Your task to perform on an android device: toggle sleep mode Image 0: 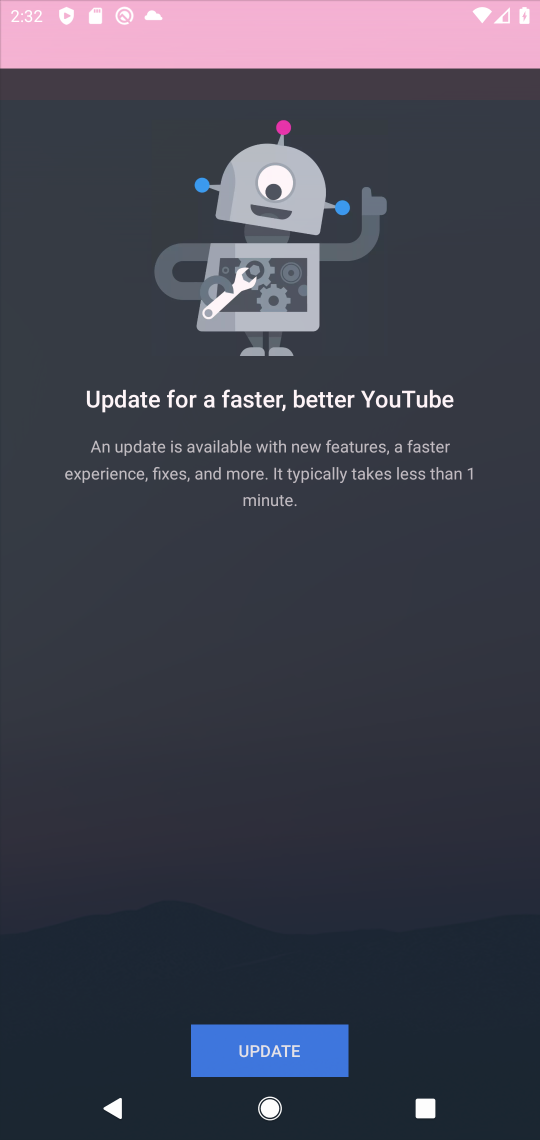
Step 0: press home button
Your task to perform on an android device: toggle sleep mode Image 1: 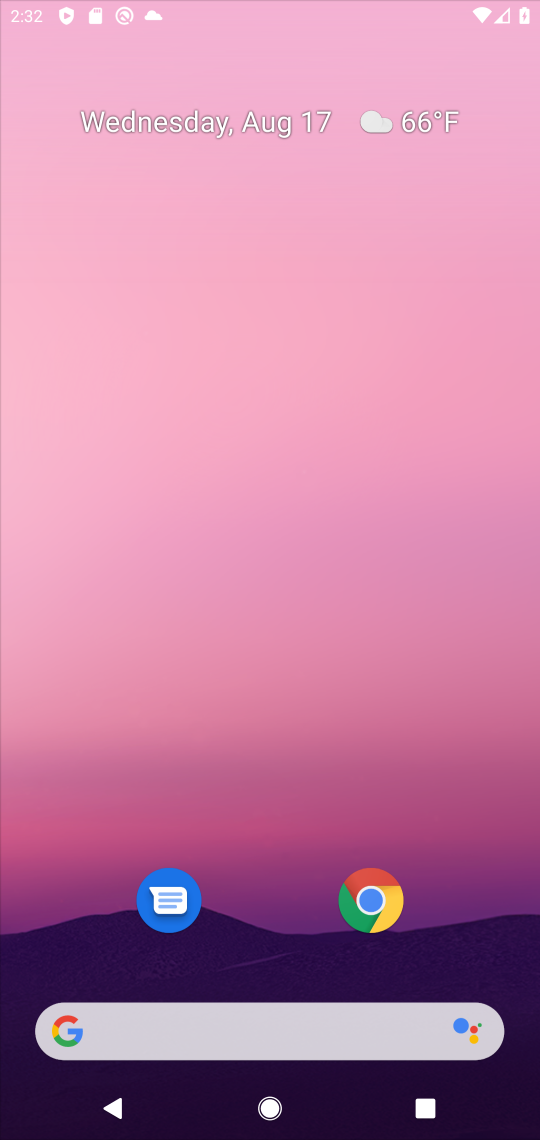
Step 1: press home button
Your task to perform on an android device: toggle sleep mode Image 2: 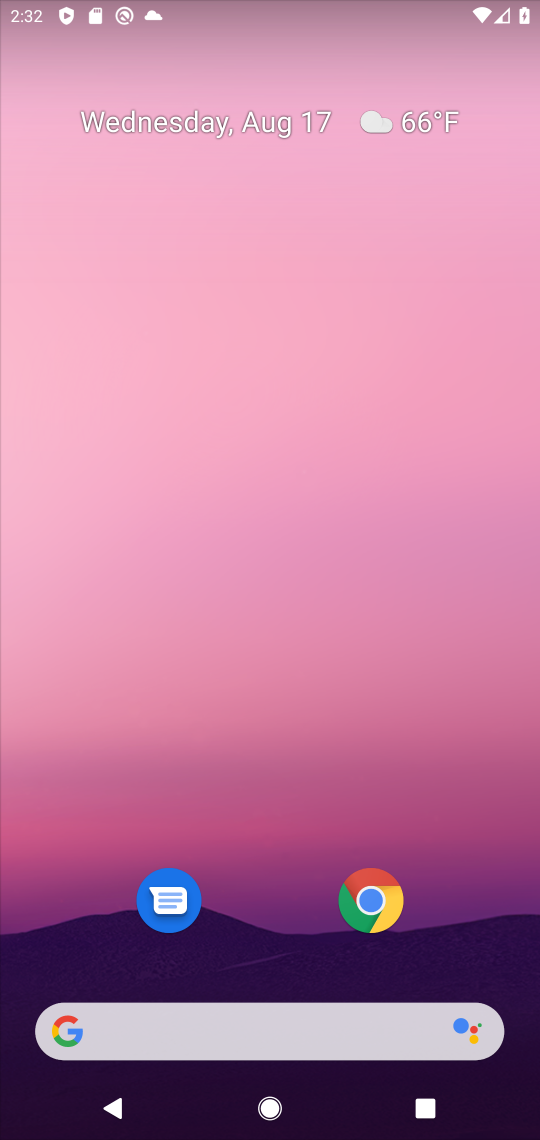
Step 2: drag from (313, 1043) to (355, 269)
Your task to perform on an android device: toggle sleep mode Image 3: 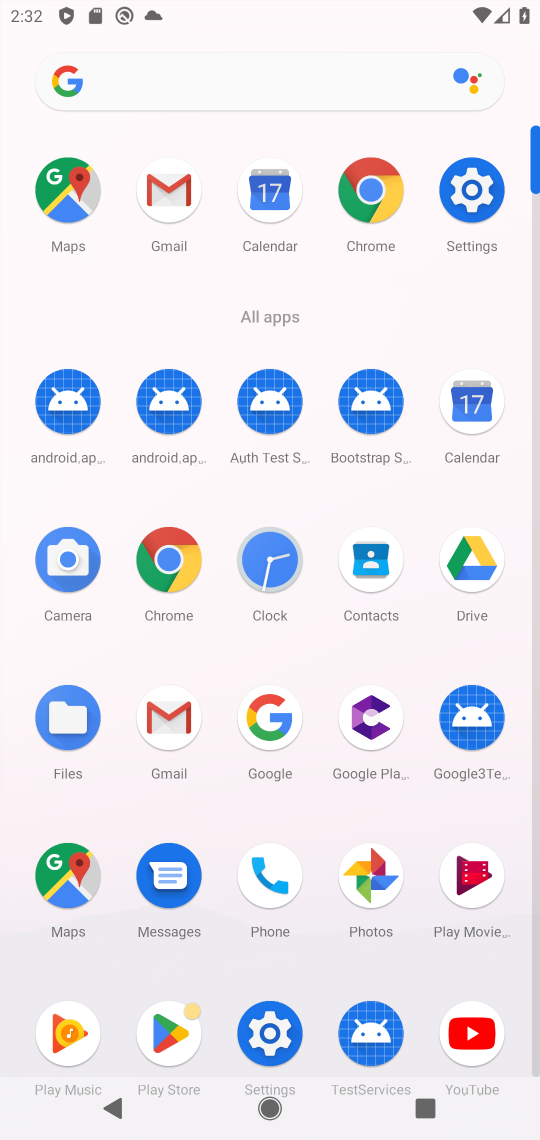
Step 3: click (463, 197)
Your task to perform on an android device: toggle sleep mode Image 4: 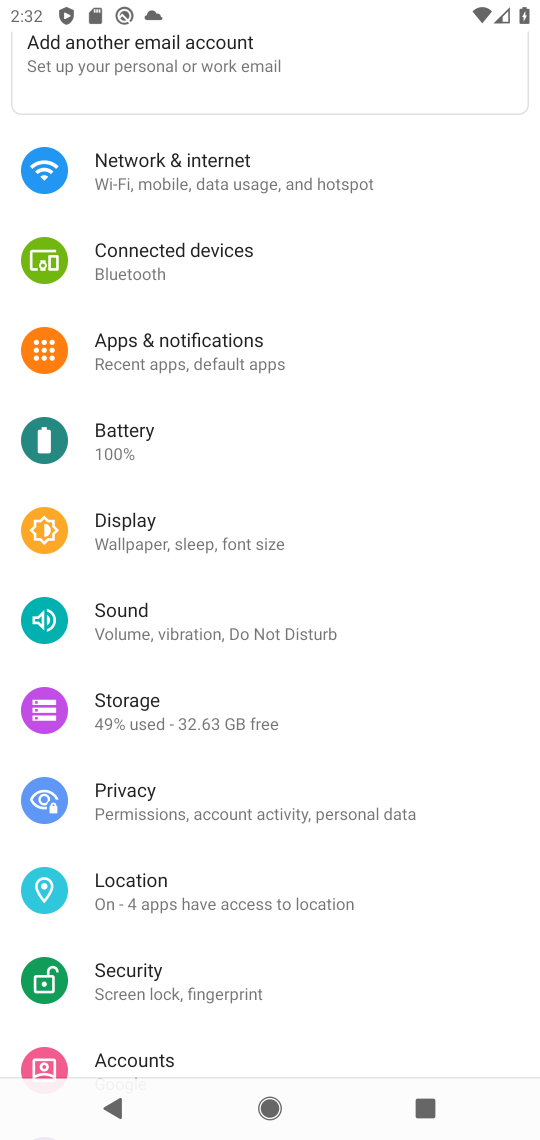
Step 4: click (133, 528)
Your task to perform on an android device: toggle sleep mode Image 5: 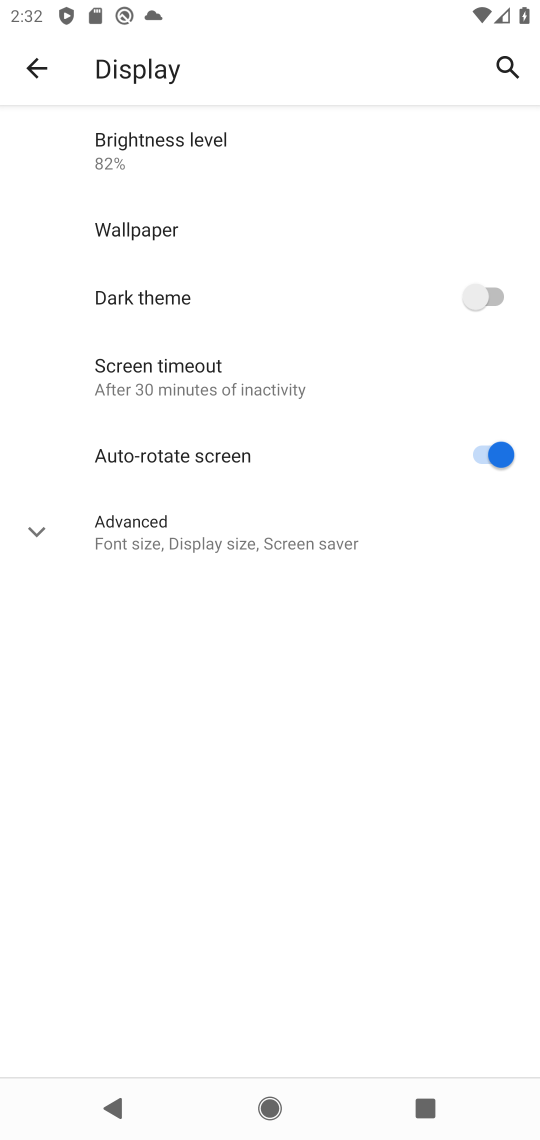
Step 5: task complete